Your task to perform on an android device: toggle location history Image 0: 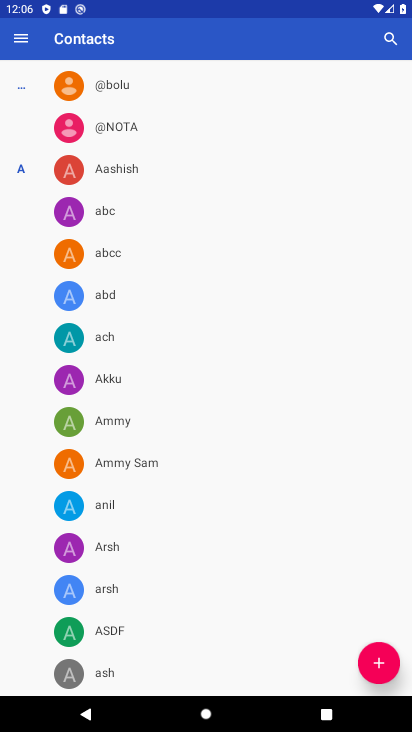
Step 0: press back button
Your task to perform on an android device: toggle location history Image 1: 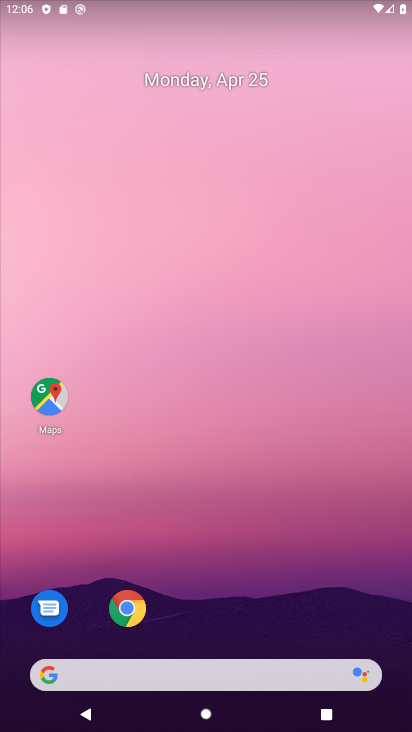
Step 1: drag from (220, 651) to (289, 64)
Your task to perform on an android device: toggle location history Image 2: 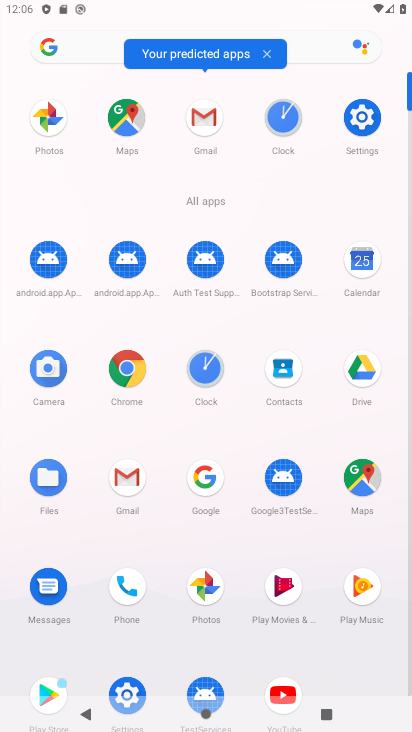
Step 2: drag from (218, 649) to (290, 262)
Your task to perform on an android device: toggle location history Image 3: 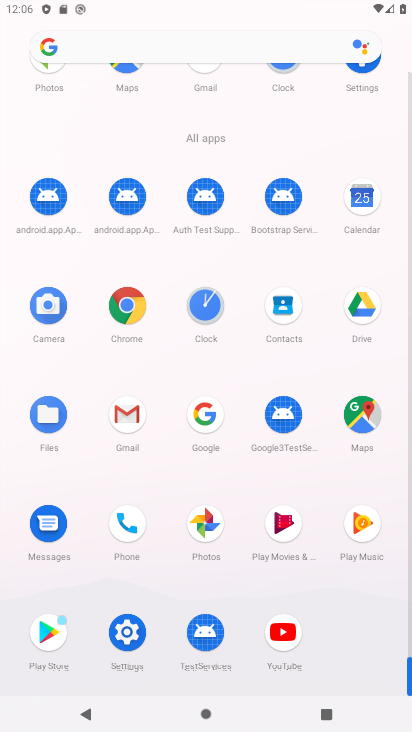
Step 3: click (129, 640)
Your task to perform on an android device: toggle location history Image 4: 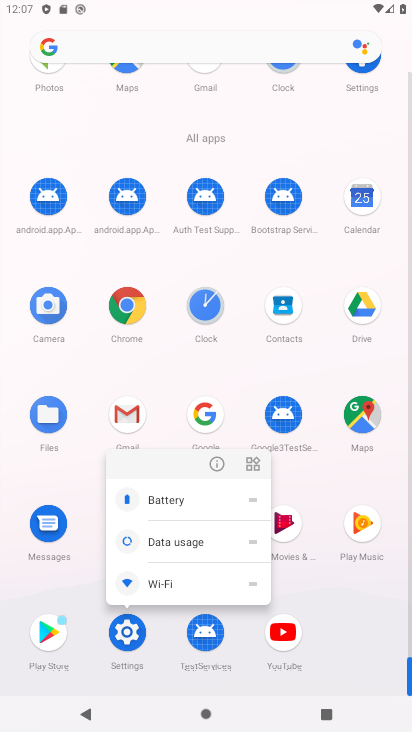
Step 4: click (123, 640)
Your task to perform on an android device: toggle location history Image 5: 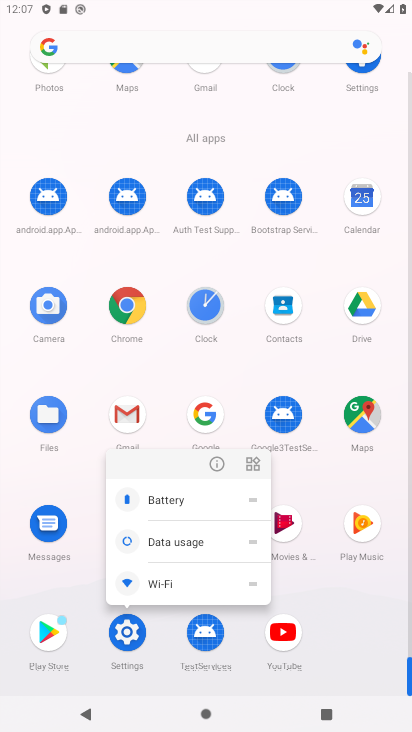
Step 5: click (146, 640)
Your task to perform on an android device: toggle location history Image 6: 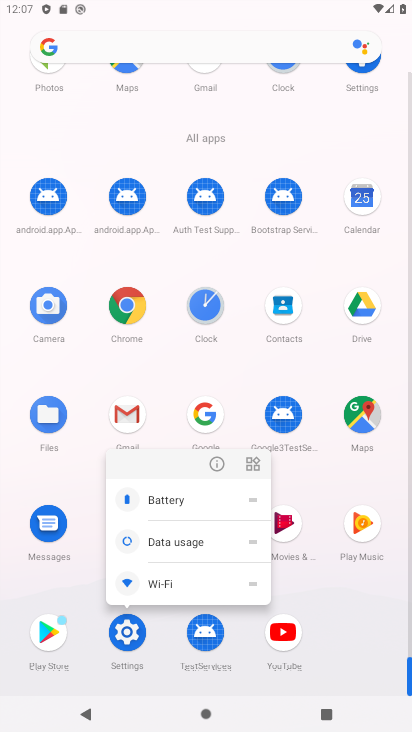
Step 6: click (122, 634)
Your task to perform on an android device: toggle location history Image 7: 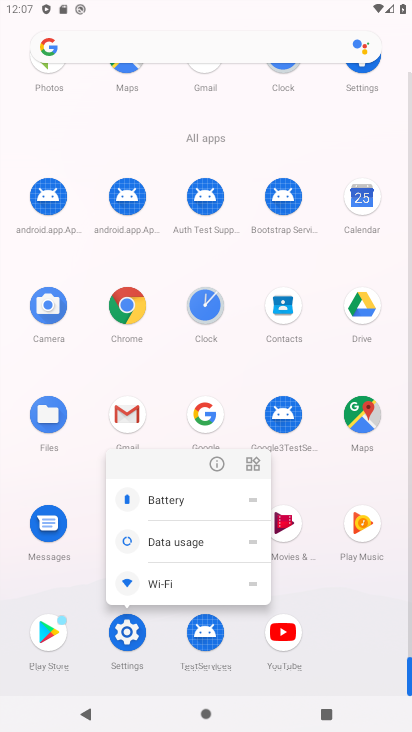
Step 7: click (131, 629)
Your task to perform on an android device: toggle location history Image 8: 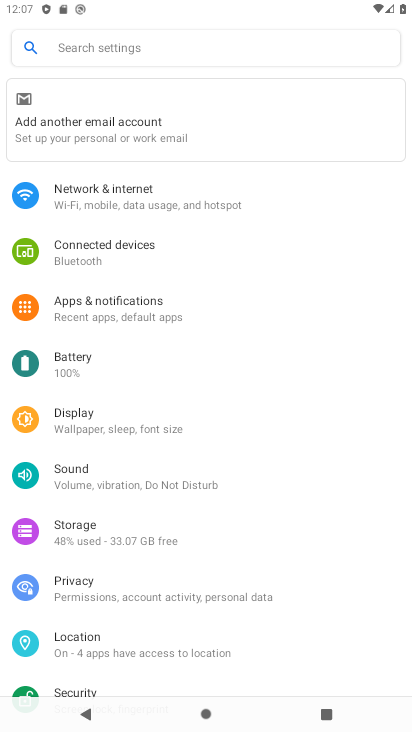
Step 8: drag from (117, 576) to (194, 265)
Your task to perform on an android device: toggle location history Image 9: 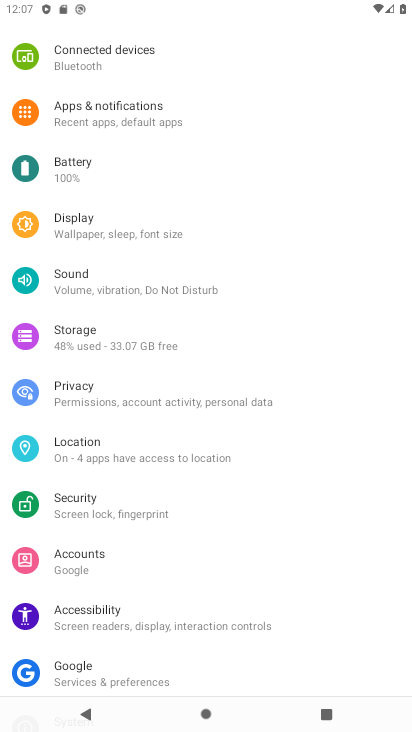
Step 9: click (134, 449)
Your task to perform on an android device: toggle location history Image 10: 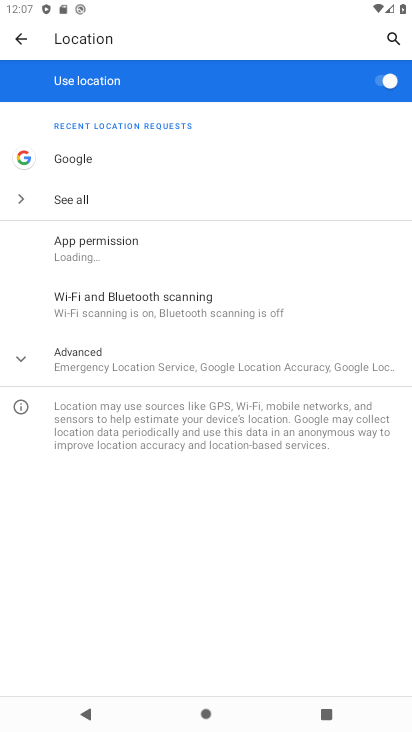
Step 10: click (132, 365)
Your task to perform on an android device: toggle location history Image 11: 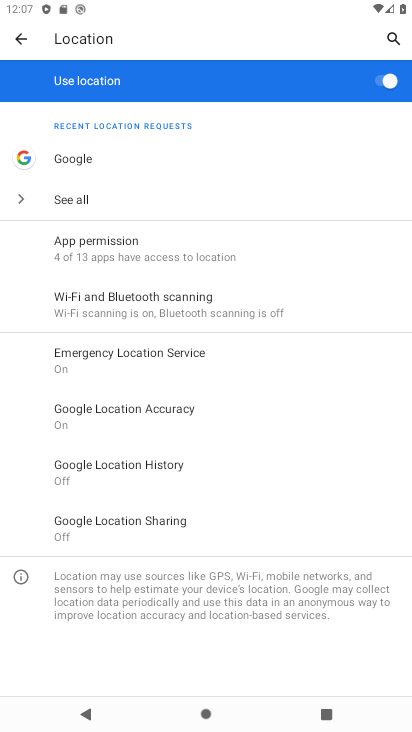
Step 11: click (164, 476)
Your task to perform on an android device: toggle location history Image 12: 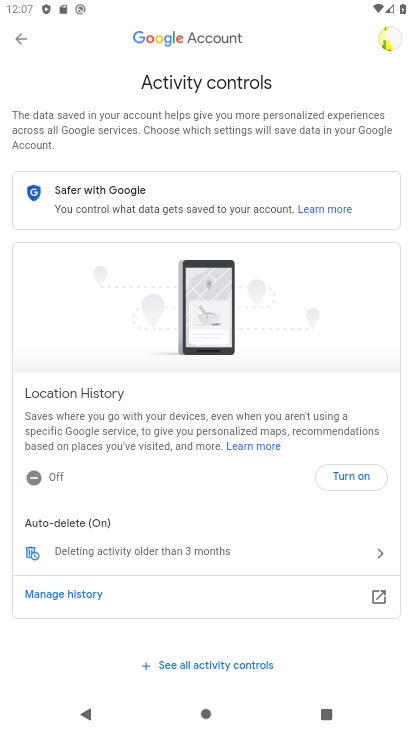
Step 12: click (360, 476)
Your task to perform on an android device: toggle location history Image 13: 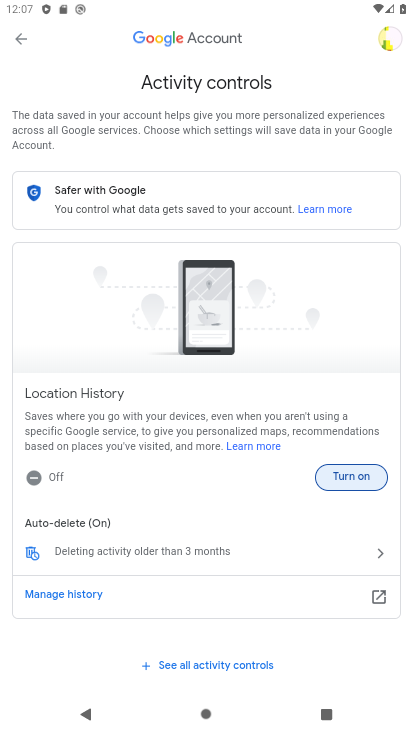
Step 13: click (364, 476)
Your task to perform on an android device: toggle location history Image 14: 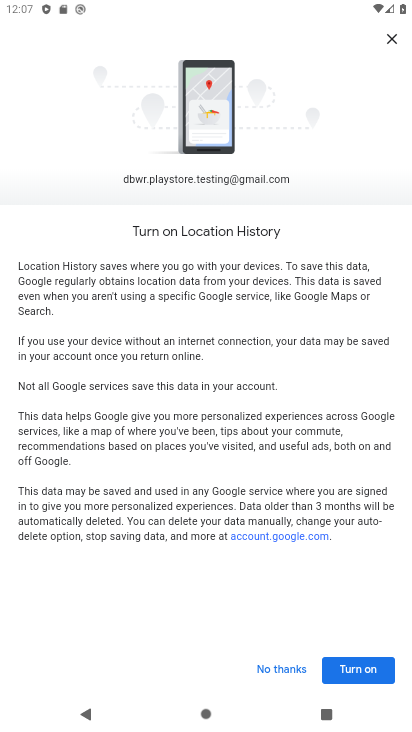
Step 14: click (374, 662)
Your task to perform on an android device: toggle location history Image 15: 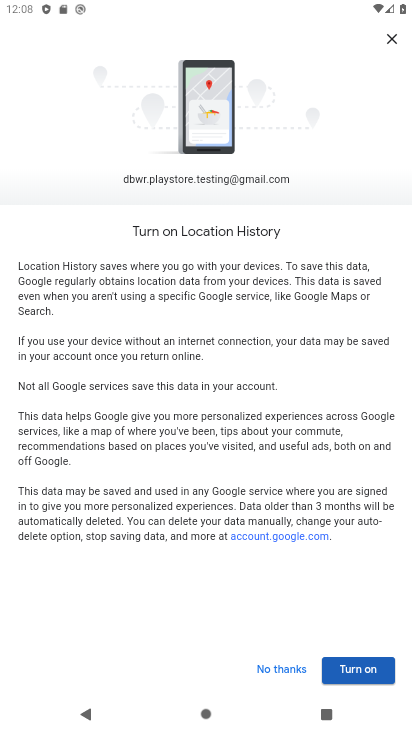
Step 15: click (371, 674)
Your task to perform on an android device: toggle location history Image 16: 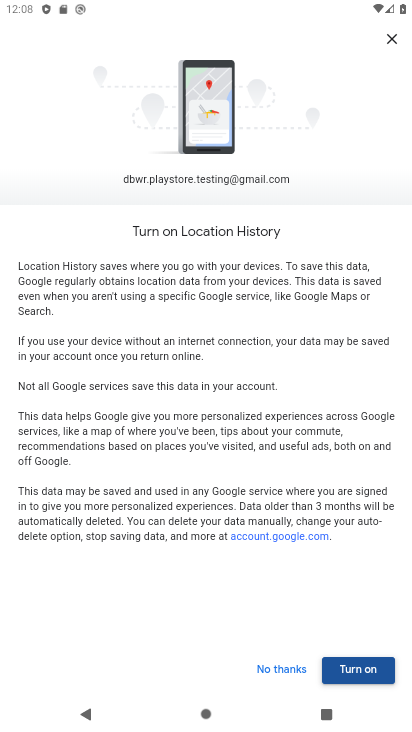
Step 16: click (369, 675)
Your task to perform on an android device: toggle location history Image 17: 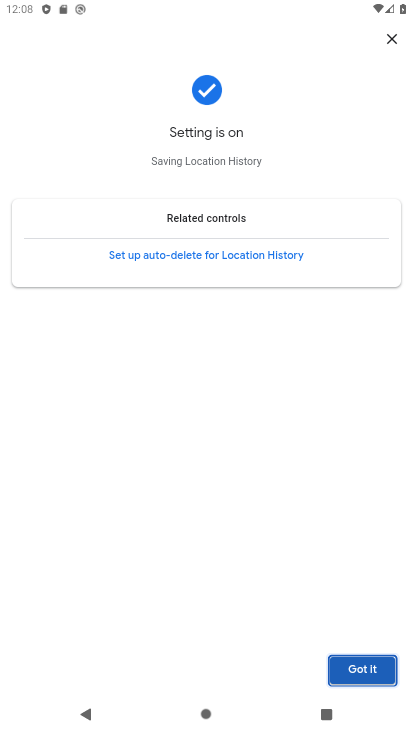
Step 17: task complete